Your task to perform on an android device: check storage Image 0: 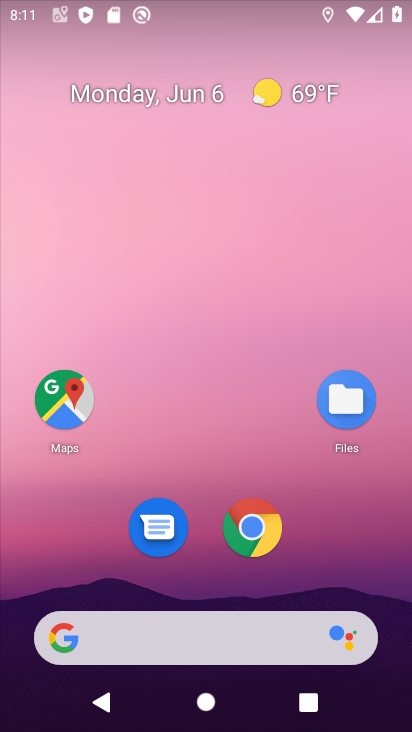
Step 0: drag from (284, 561) to (258, 47)
Your task to perform on an android device: check storage Image 1: 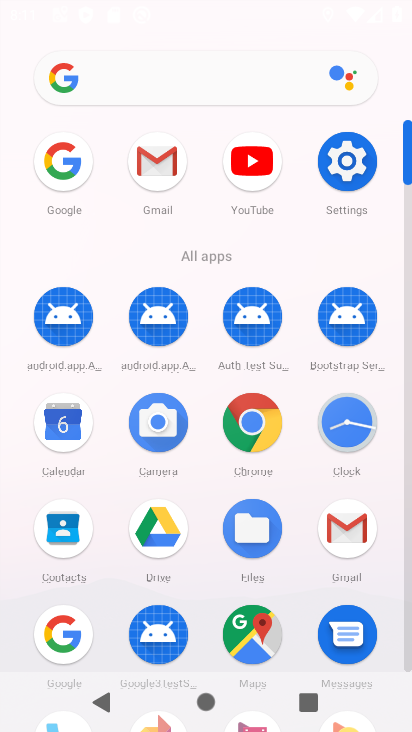
Step 1: click (342, 163)
Your task to perform on an android device: check storage Image 2: 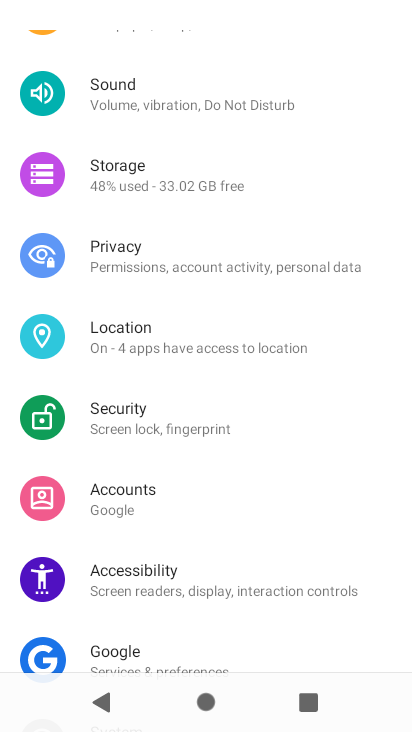
Step 2: drag from (199, 189) to (213, 222)
Your task to perform on an android device: check storage Image 3: 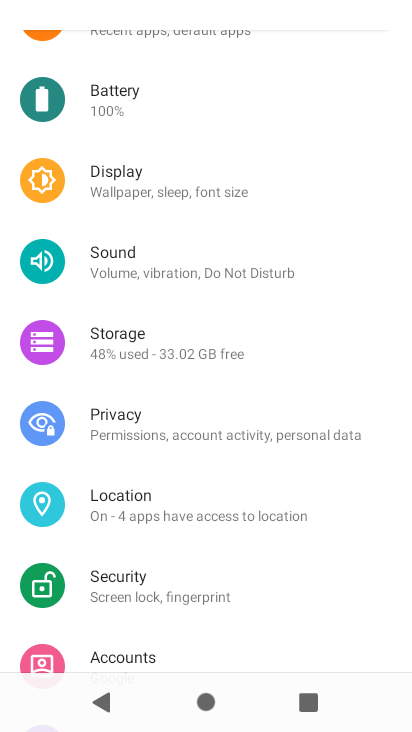
Step 3: click (139, 354)
Your task to perform on an android device: check storage Image 4: 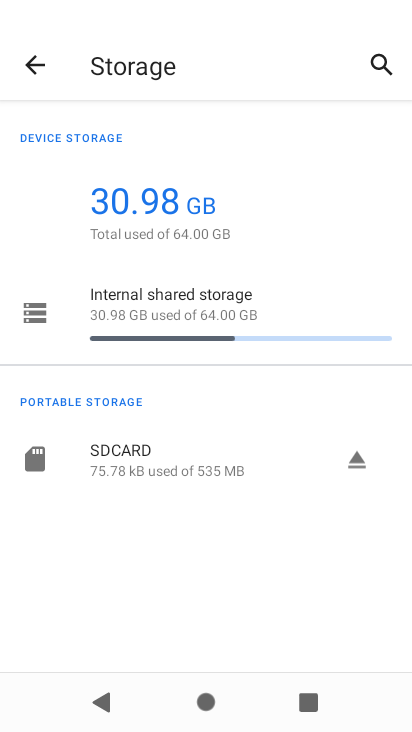
Step 4: task complete